Your task to perform on an android device: Check the news Image 0: 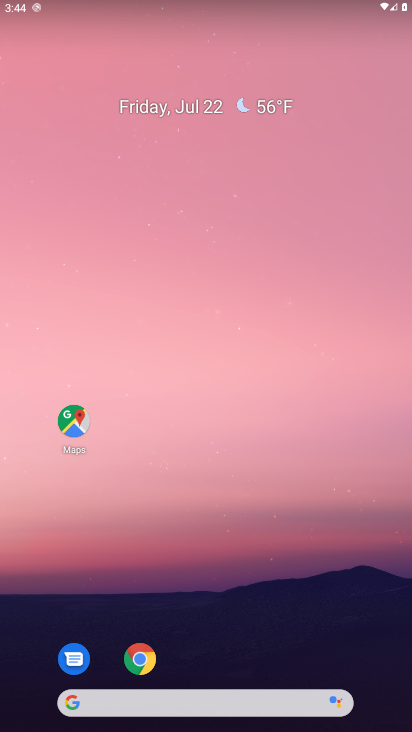
Step 0: press home button
Your task to perform on an android device: Check the news Image 1: 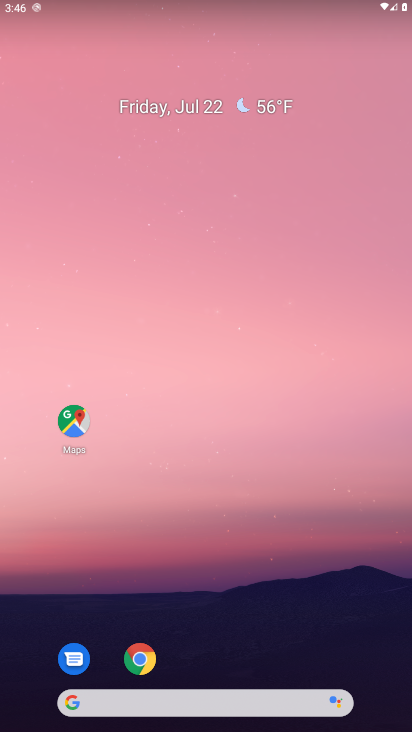
Step 1: drag from (200, 603) to (253, 21)
Your task to perform on an android device: Check the news Image 2: 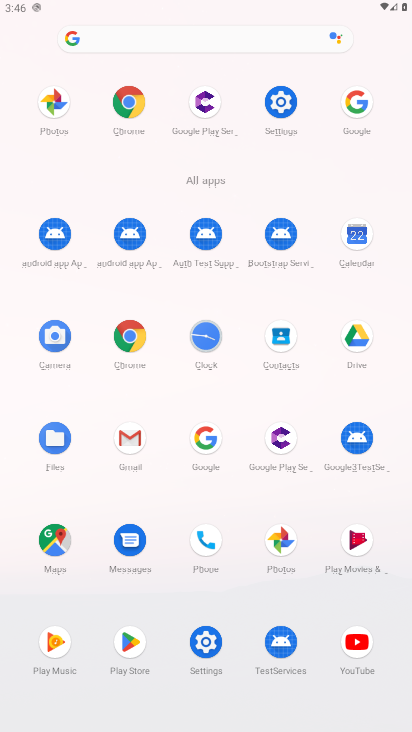
Step 2: click (212, 450)
Your task to perform on an android device: Check the news Image 3: 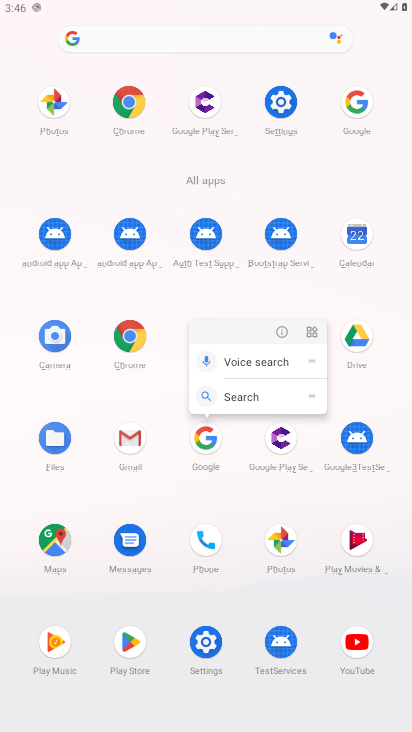
Step 3: click (202, 429)
Your task to perform on an android device: Check the news Image 4: 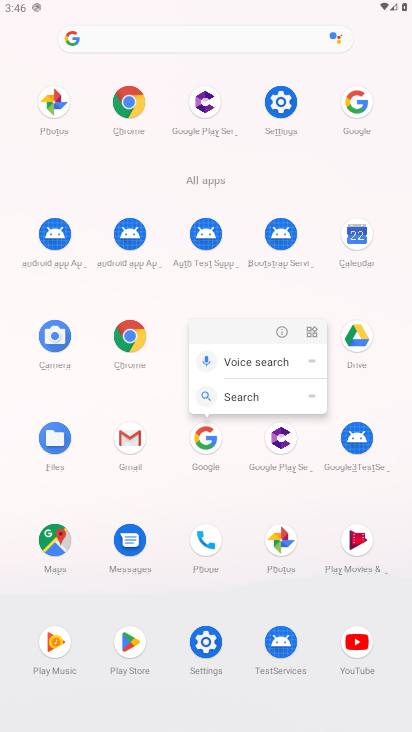
Step 4: click (203, 442)
Your task to perform on an android device: Check the news Image 5: 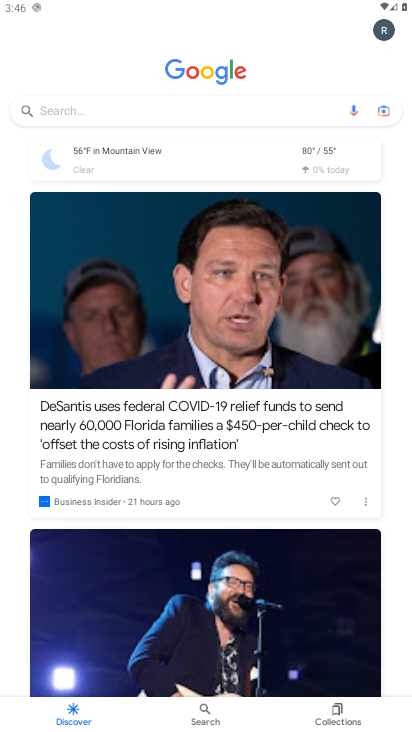
Step 5: click (77, 119)
Your task to perform on an android device: Check the news Image 6: 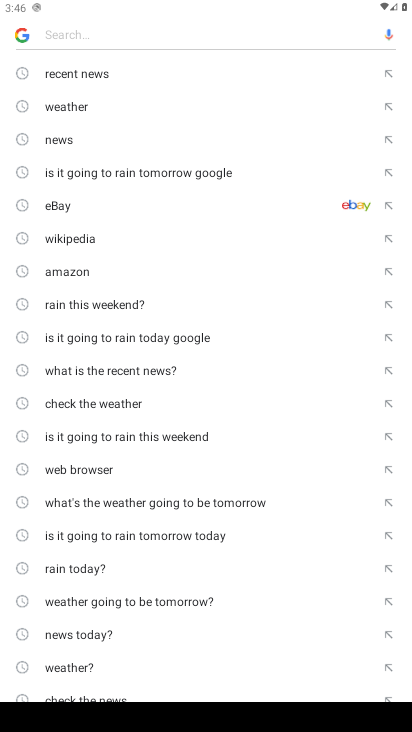
Step 6: click (80, 145)
Your task to perform on an android device: Check the news Image 7: 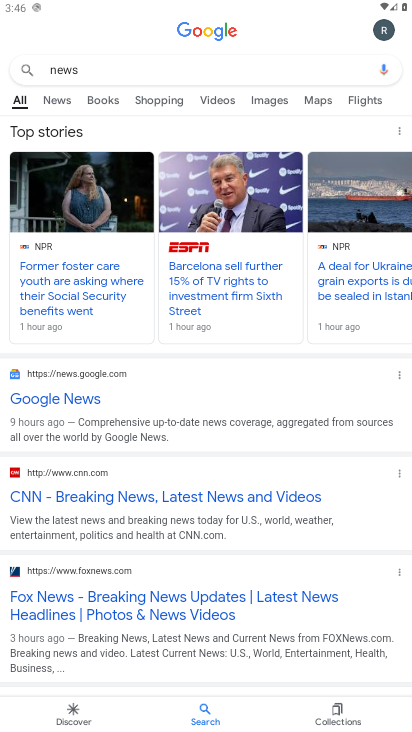
Step 7: task complete